Your task to perform on an android device: Open ESPN.com Image 0: 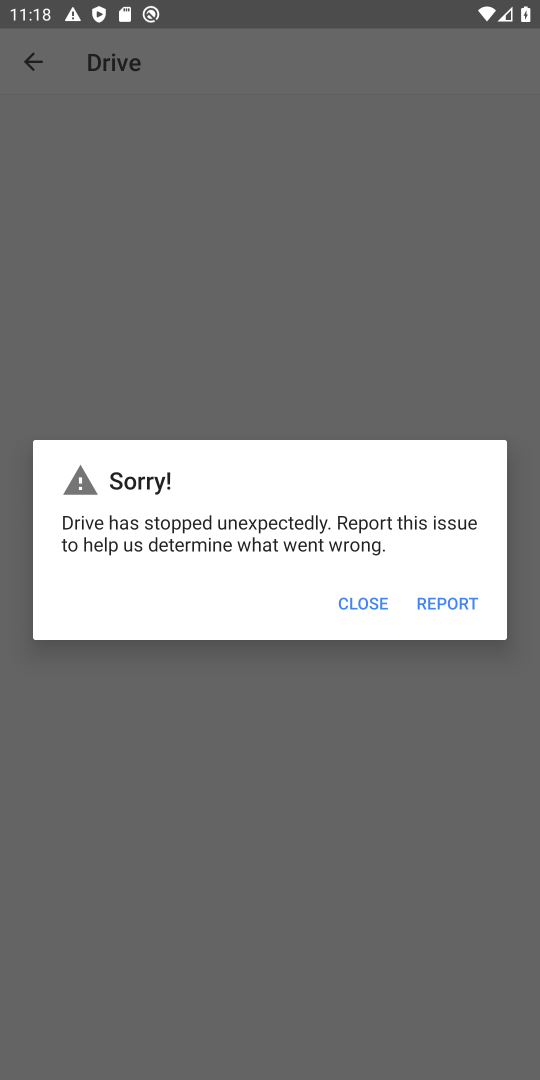
Step 0: press home button
Your task to perform on an android device: Open ESPN.com Image 1: 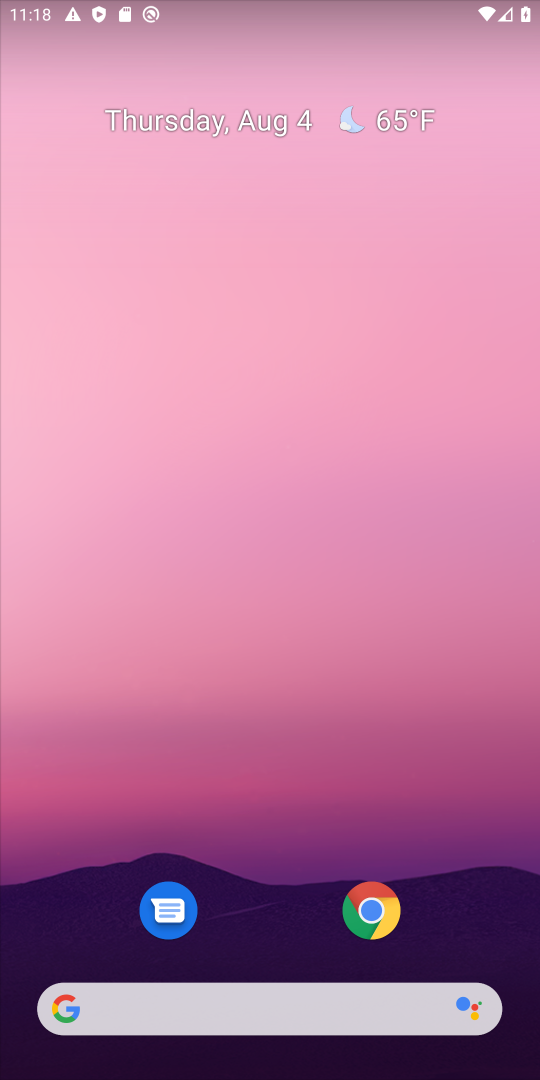
Step 1: drag from (282, 668) to (278, 307)
Your task to perform on an android device: Open ESPN.com Image 2: 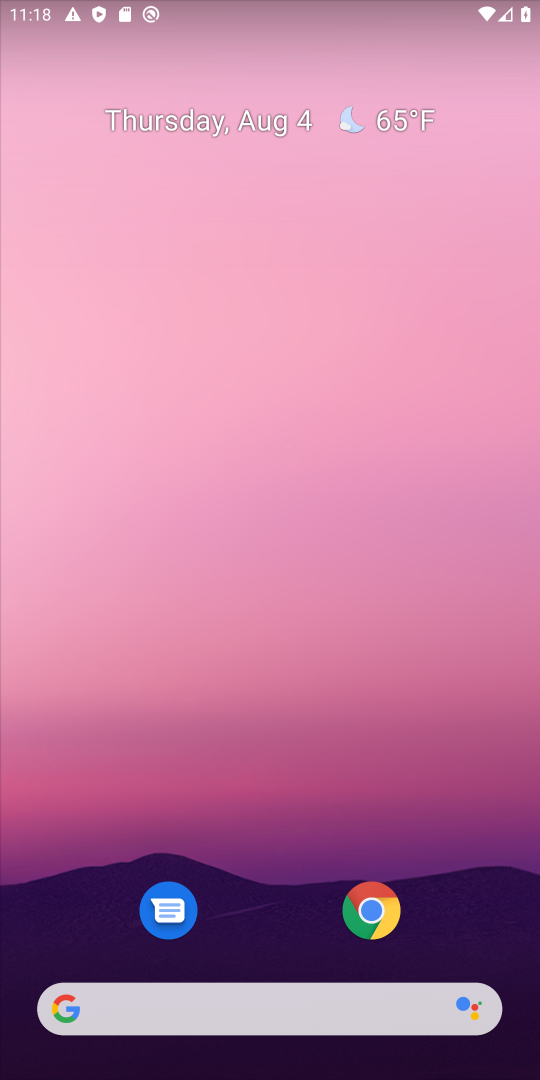
Step 2: click (355, 895)
Your task to perform on an android device: Open ESPN.com Image 3: 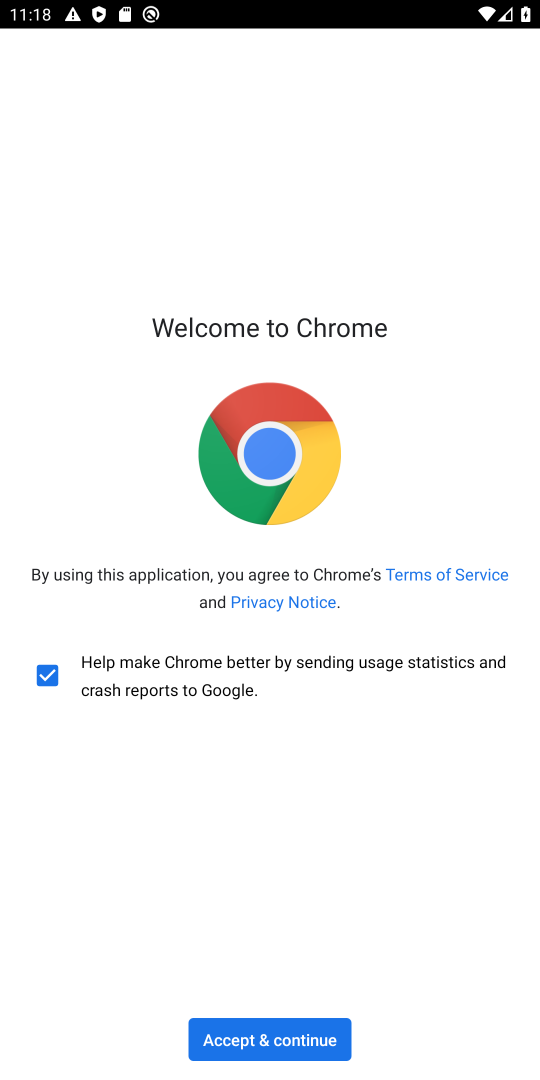
Step 3: click (237, 1035)
Your task to perform on an android device: Open ESPN.com Image 4: 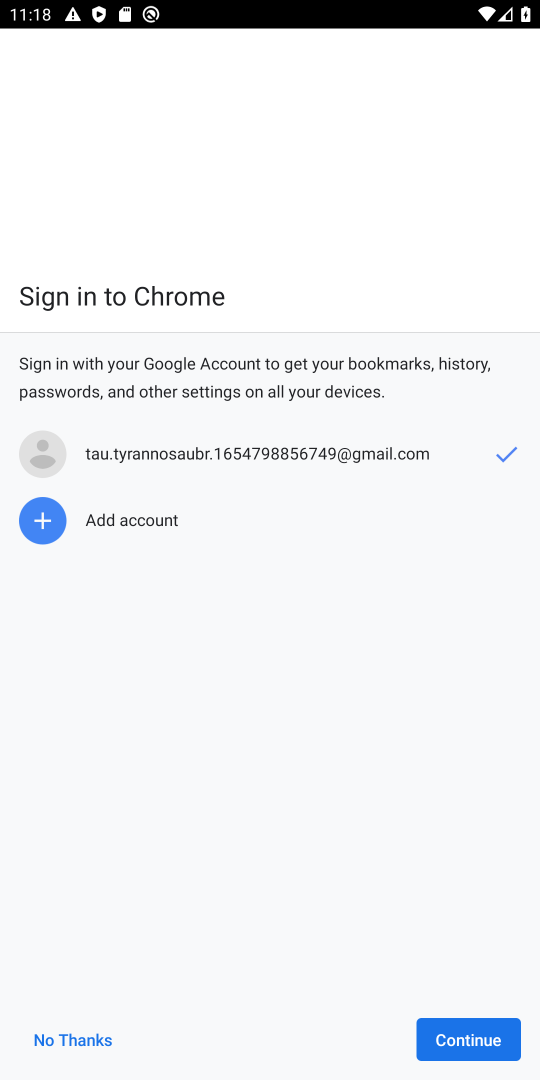
Step 4: click (456, 1044)
Your task to perform on an android device: Open ESPN.com Image 5: 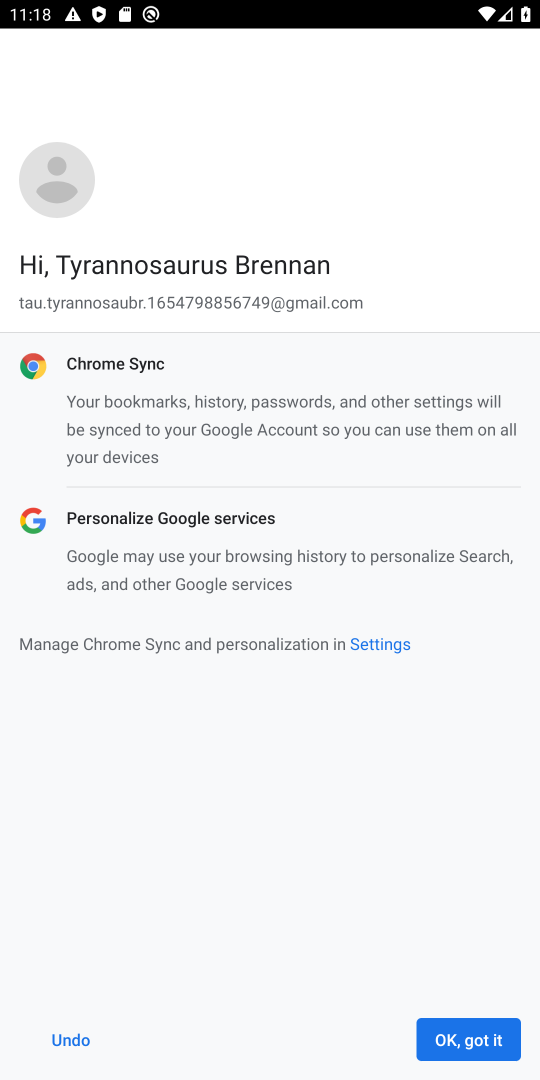
Step 5: click (456, 1044)
Your task to perform on an android device: Open ESPN.com Image 6: 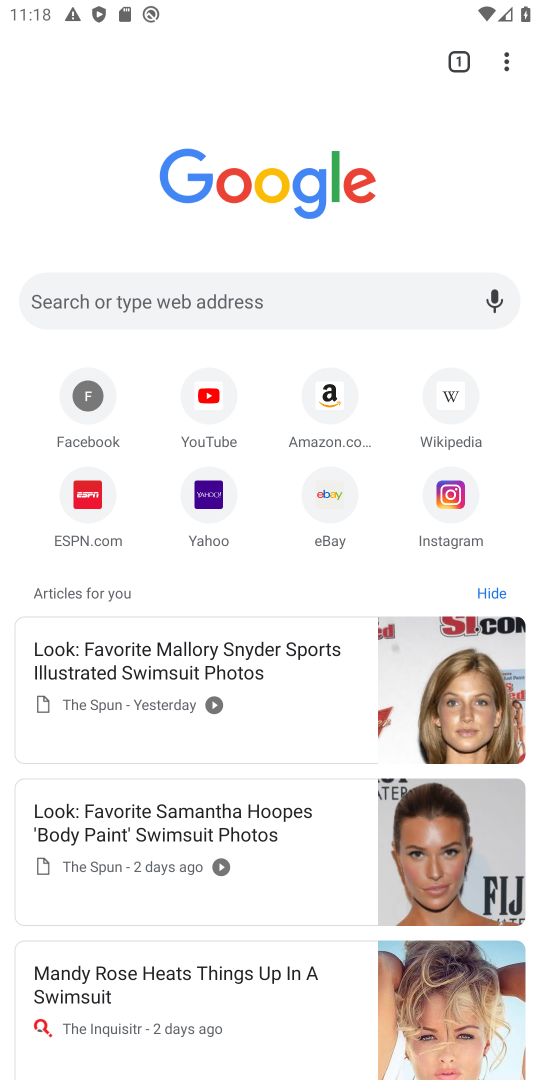
Step 6: click (81, 488)
Your task to perform on an android device: Open ESPN.com Image 7: 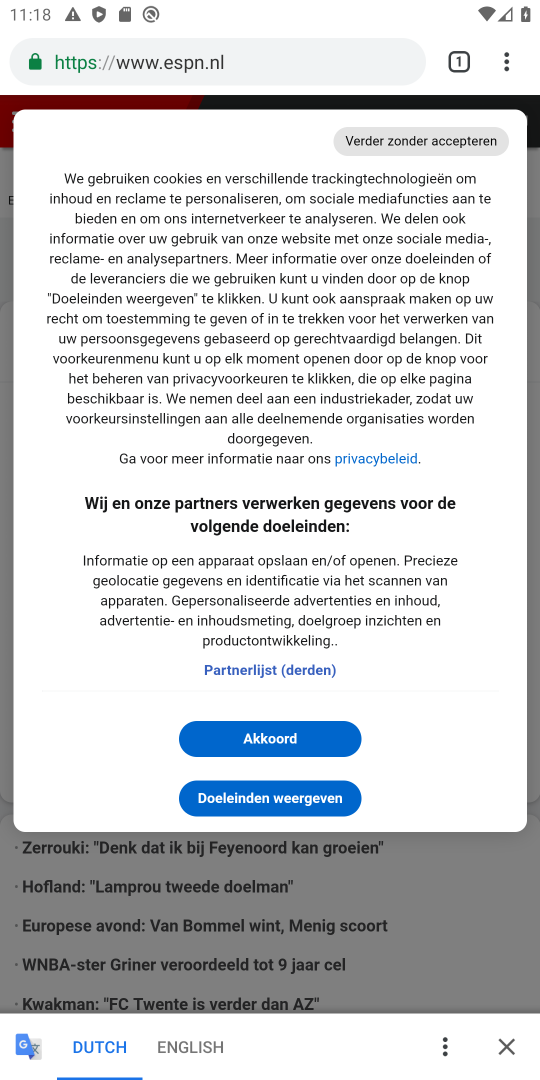
Step 7: task complete